Your task to perform on an android device: toggle sleep mode Image 0: 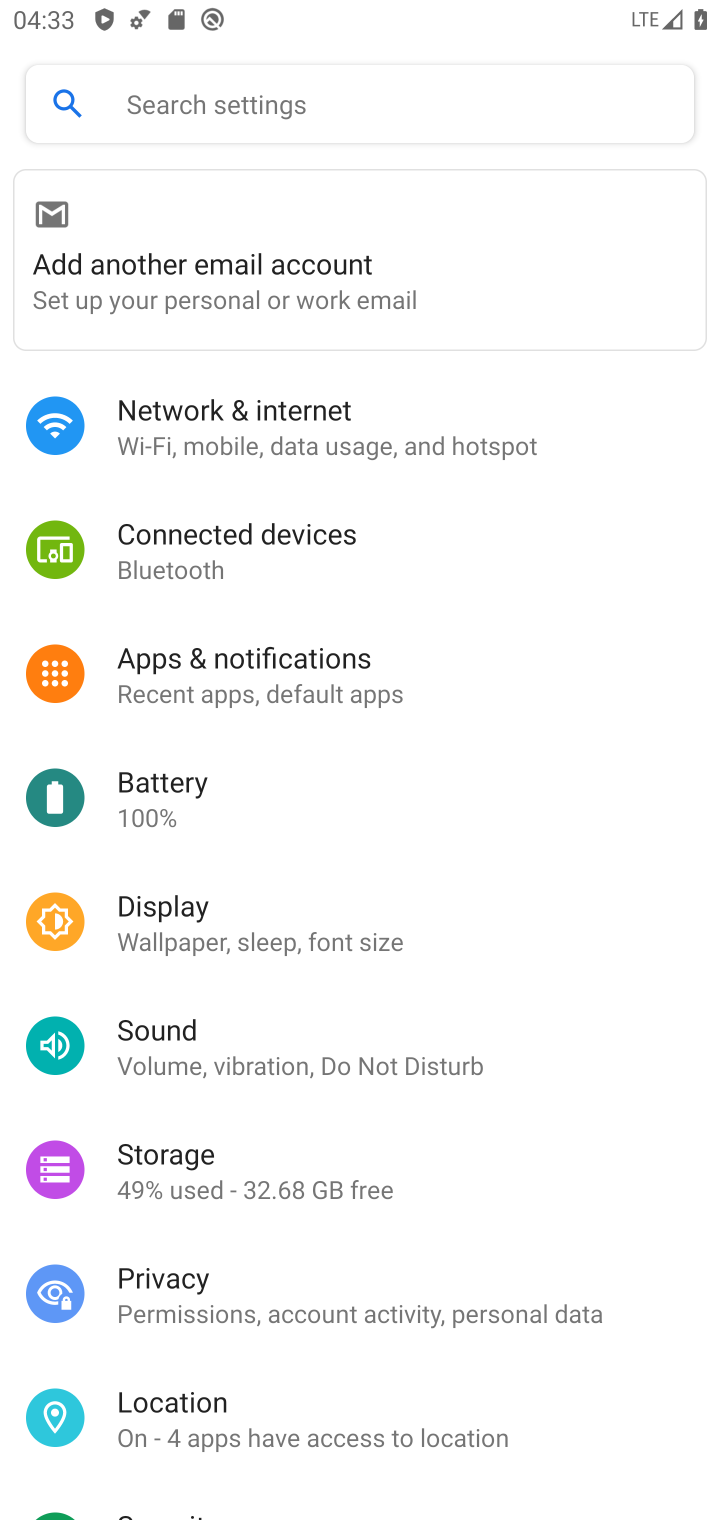
Step 0: click (171, 932)
Your task to perform on an android device: toggle sleep mode Image 1: 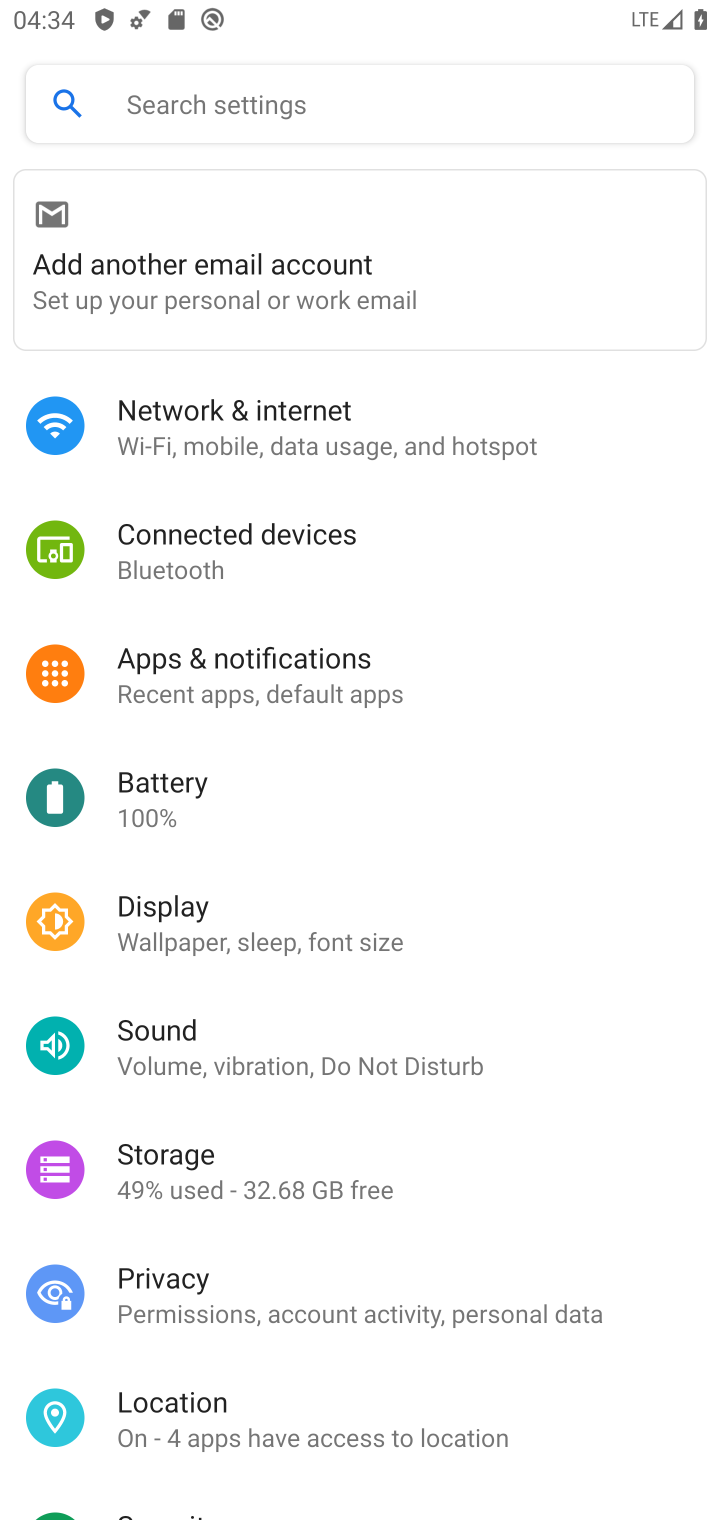
Step 1: click (176, 924)
Your task to perform on an android device: toggle sleep mode Image 2: 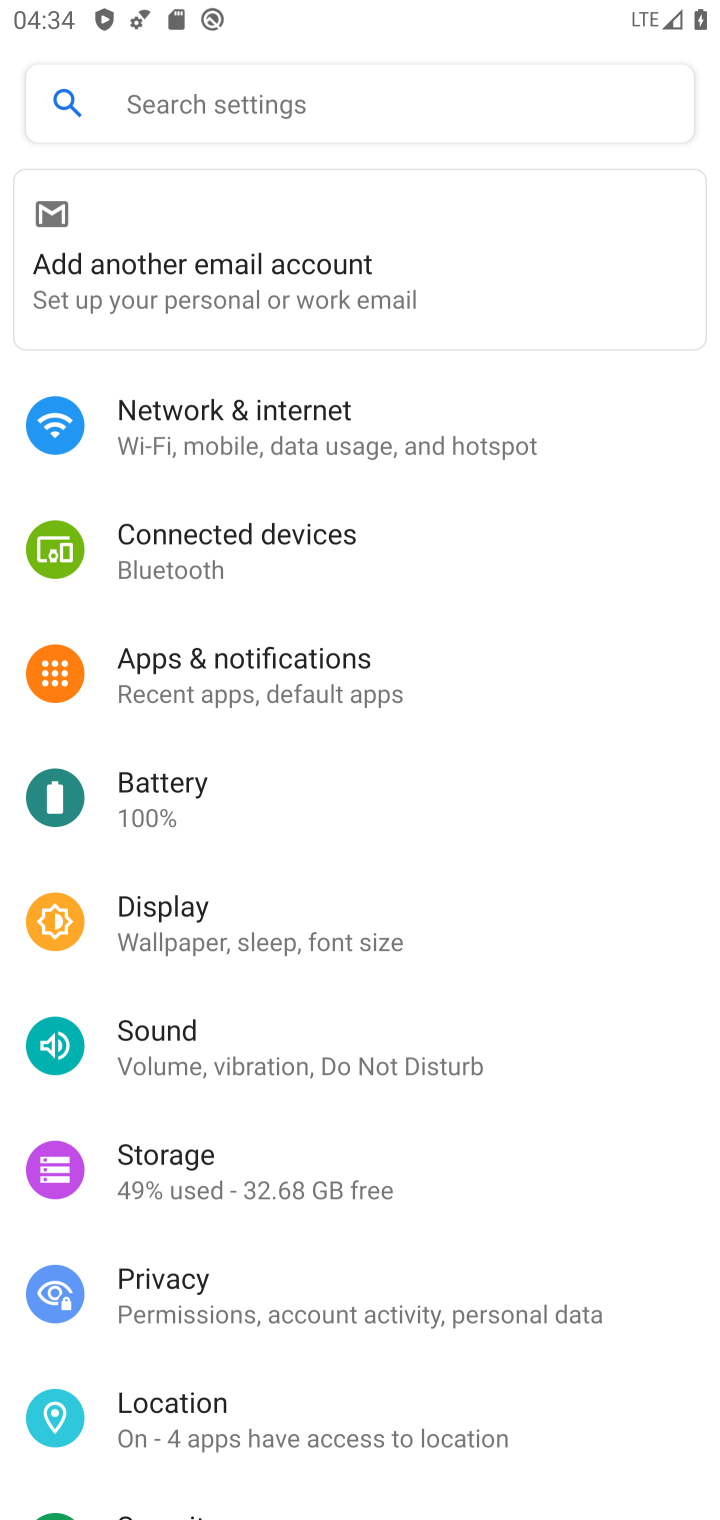
Step 2: click (182, 921)
Your task to perform on an android device: toggle sleep mode Image 3: 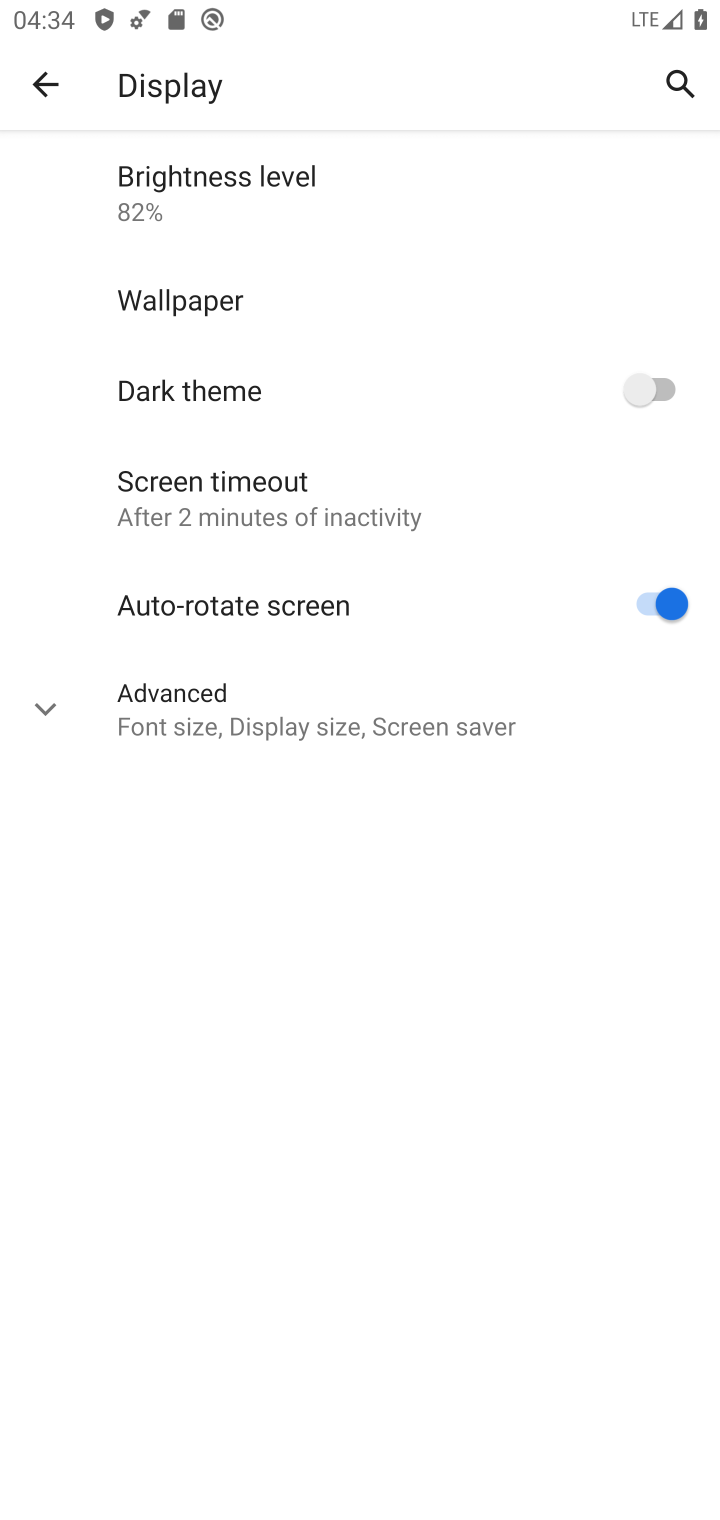
Step 3: click (193, 494)
Your task to perform on an android device: toggle sleep mode Image 4: 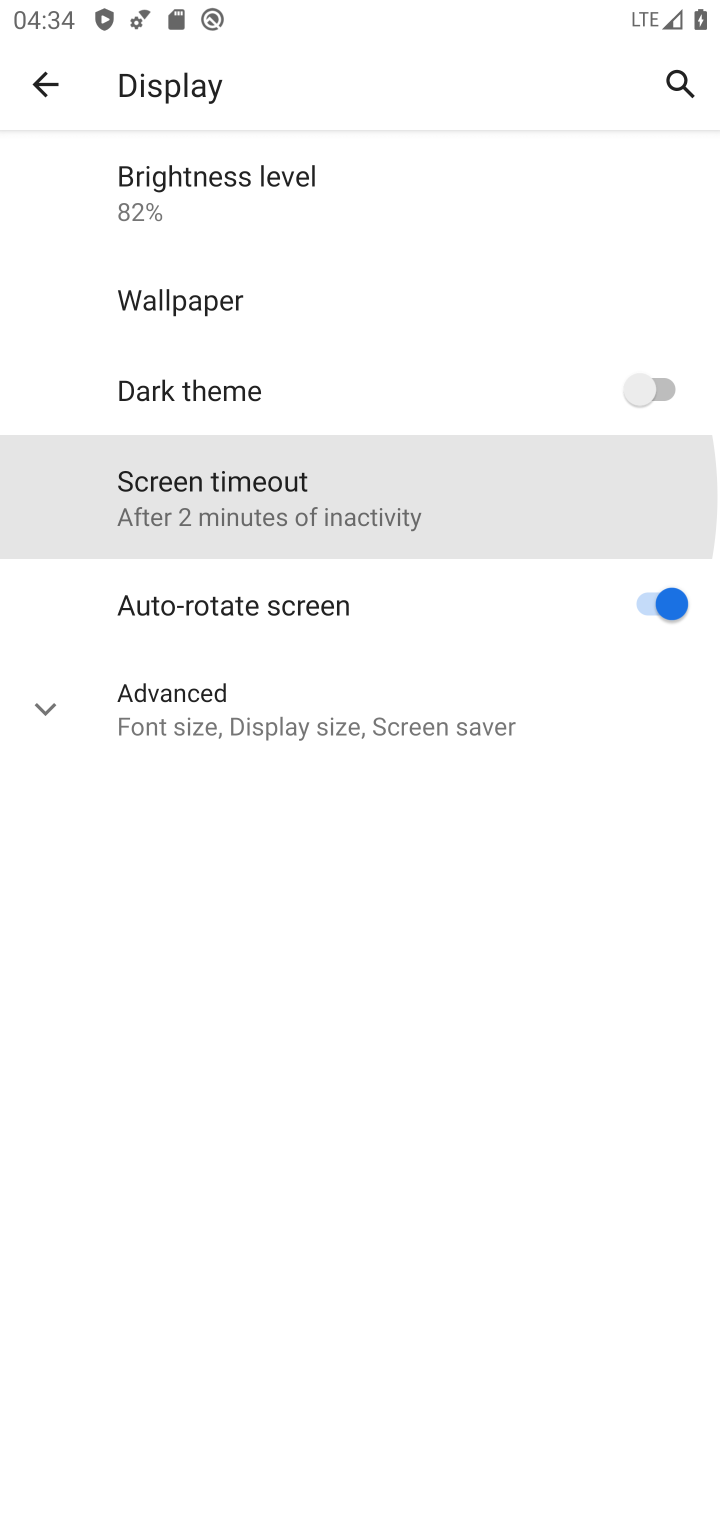
Step 4: click (200, 496)
Your task to perform on an android device: toggle sleep mode Image 5: 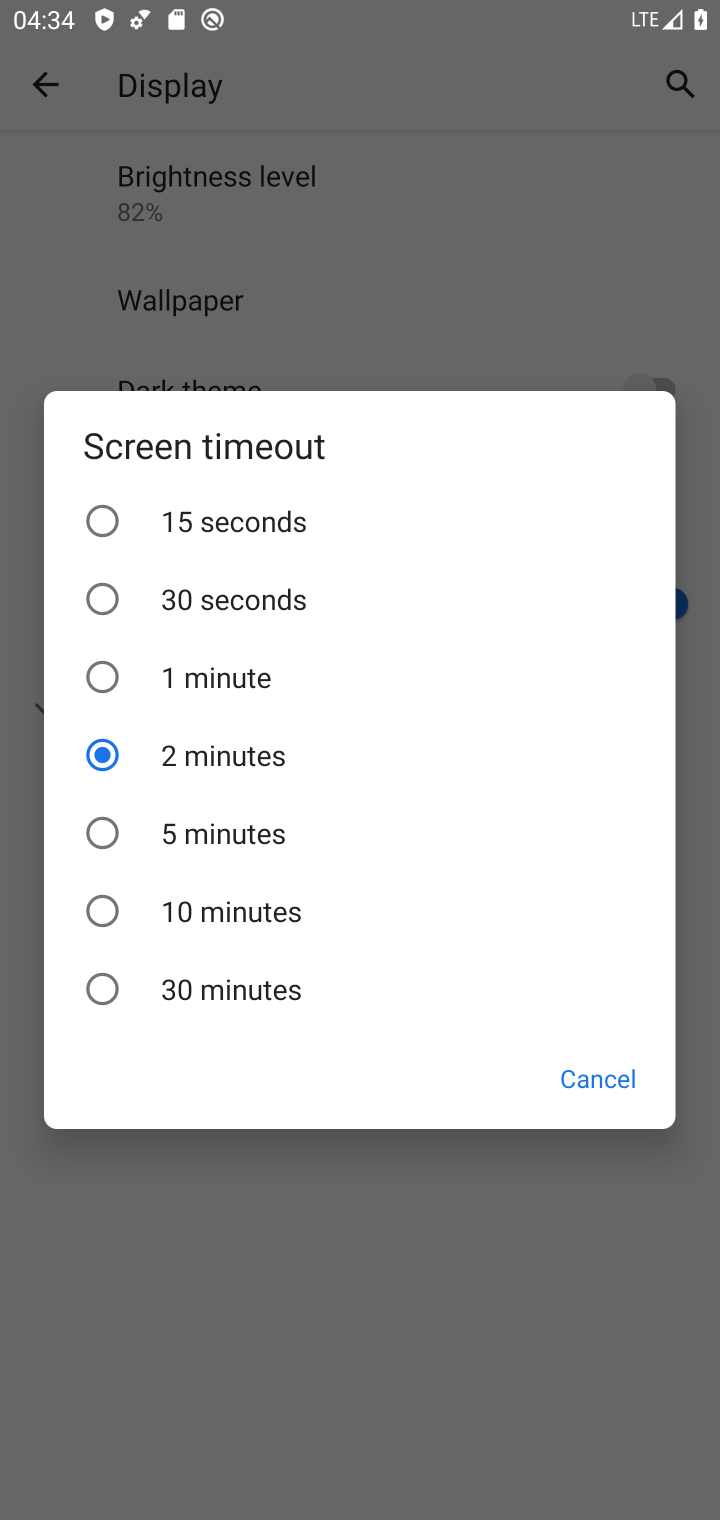
Step 5: click (116, 598)
Your task to perform on an android device: toggle sleep mode Image 6: 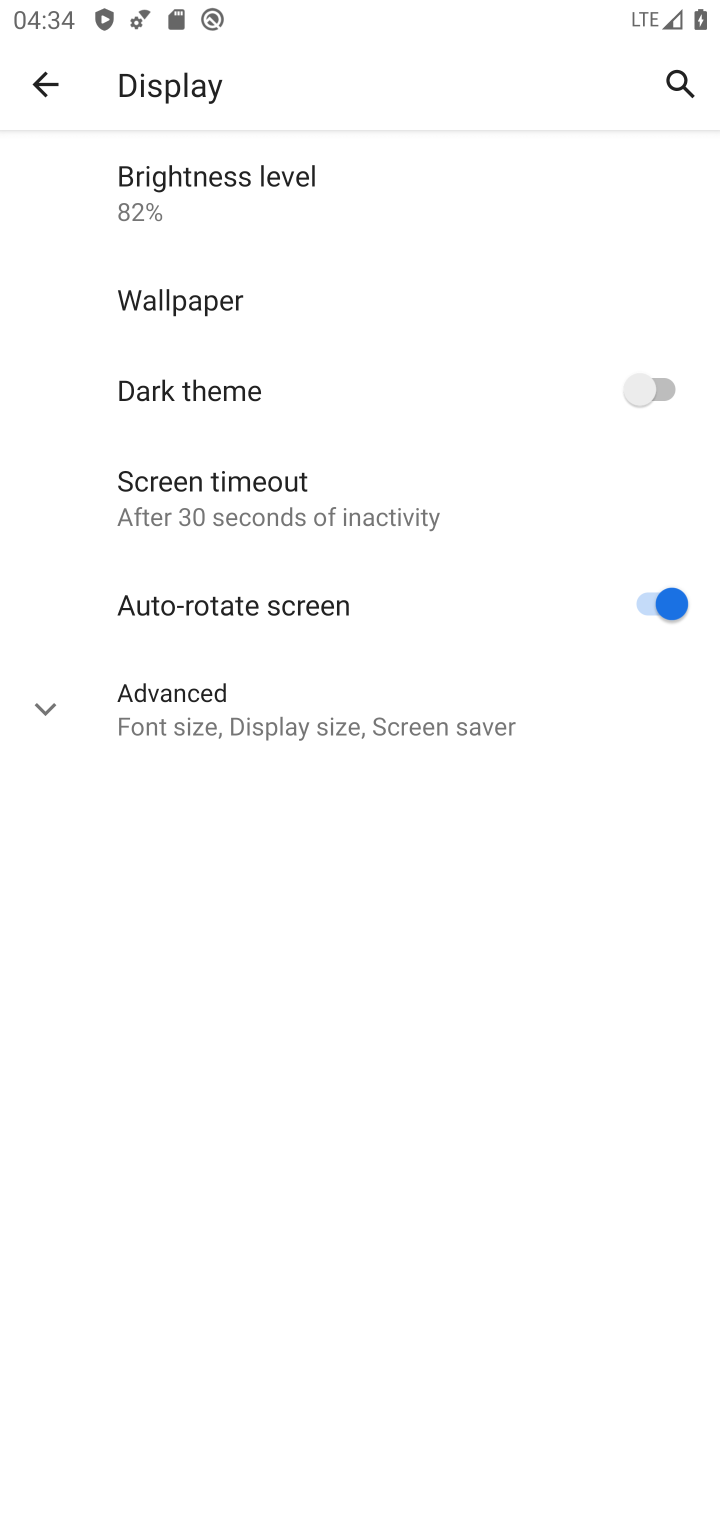
Step 6: task complete